Your task to perform on an android device: turn on translation in the chrome app Image 0: 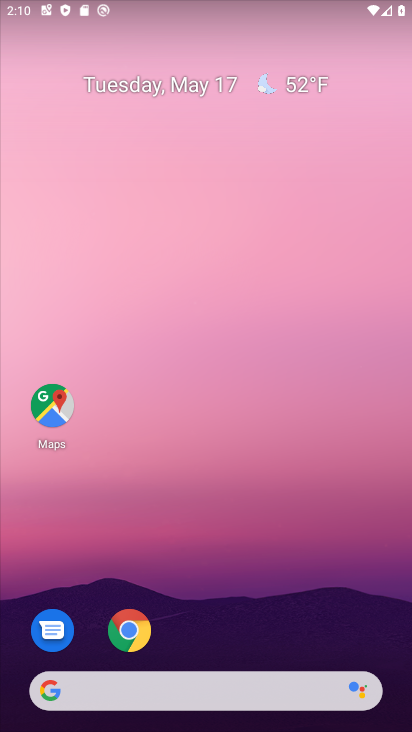
Step 0: click (127, 621)
Your task to perform on an android device: turn on translation in the chrome app Image 1: 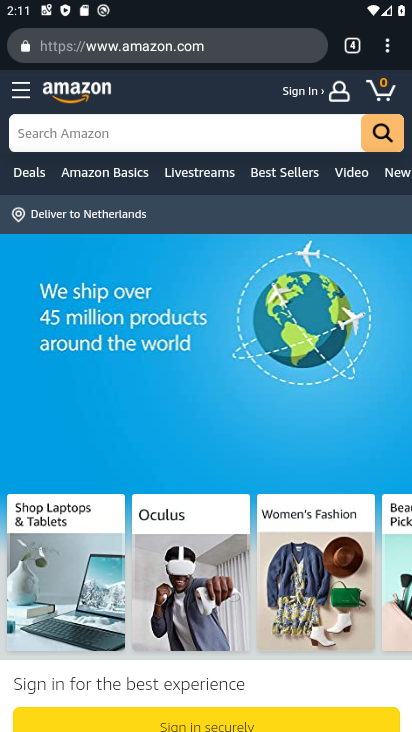
Step 1: drag from (392, 43) to (229, 546)
Your task to perform on an android device: turn on translation in the chrome app Image 2: 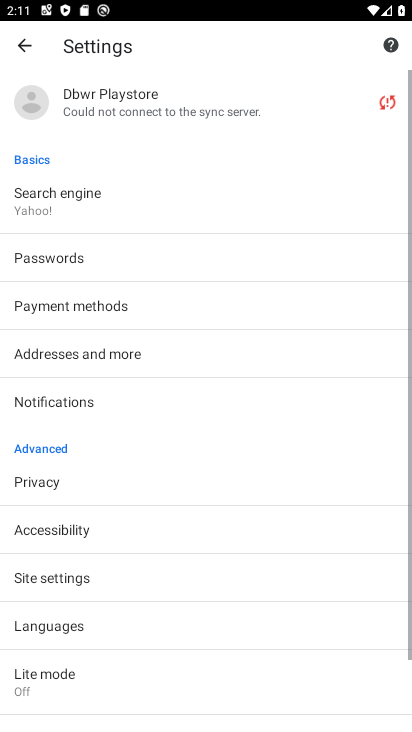
Step 2: click (71, 624)
Your task to perform on an android device: turn on translation in the chrome app Image 3: 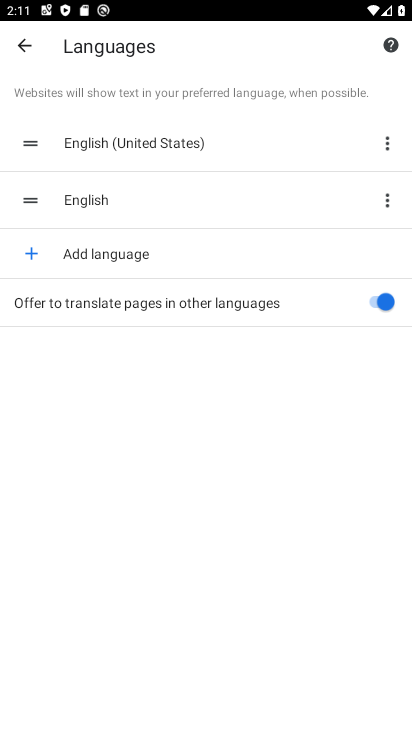
Step 3: task complete